Your task to perform on an android device: turn off notifications settings in the gmail app Image 0: 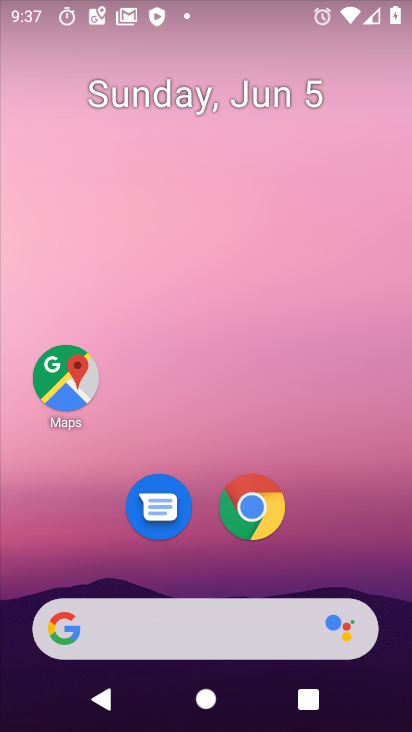
Step 0: drag from (282, 648) to (216, 195)
Your task to perform on an android device: turn off notifications settings in the gmail app Image 1: 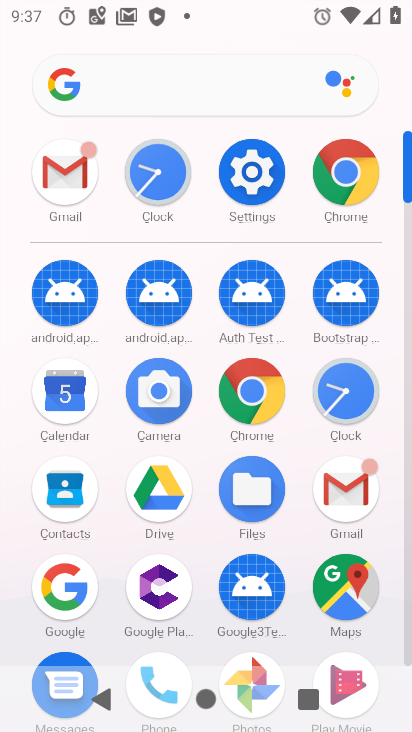
Step 1: click (73, 212)
Your task to perform on an android device: turn off notifications settings in the gmail app Image 2: 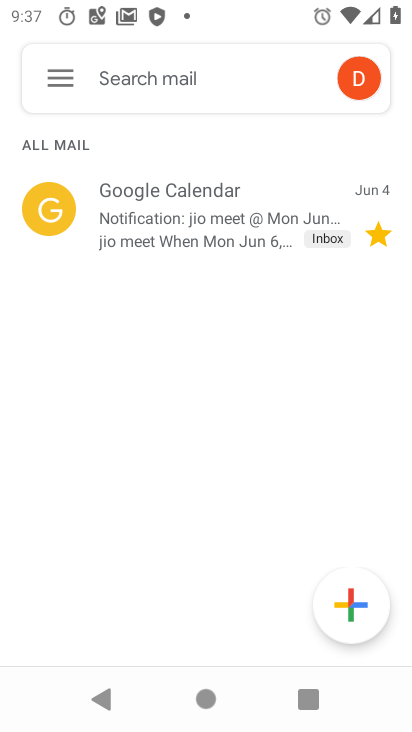
Step 2: click (65, 79)
Your task to perform on an android device: turn off notifications settings in the gmail app Image 3: 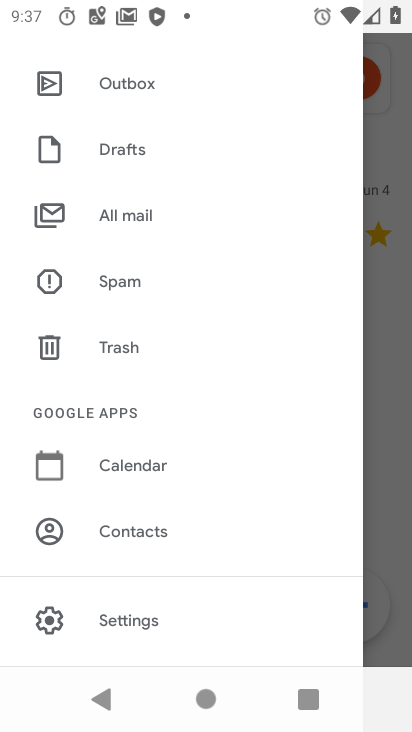
Step 3: click (138, 616)
Your task to perform on an android device: turn off notifications settings in the gmail app Image 4: 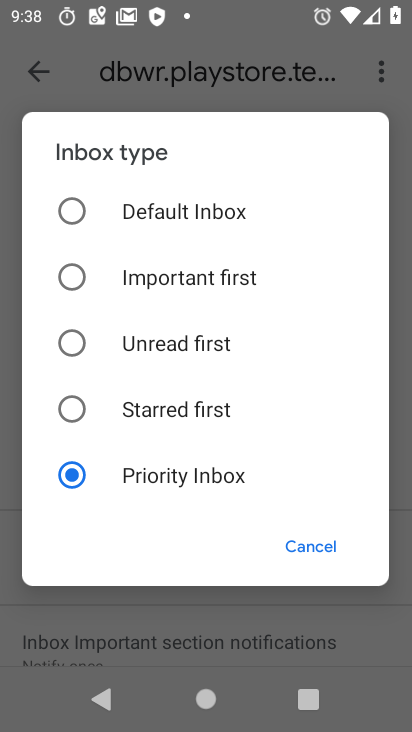
Step 4: click (306, 546)
Your task to perform on an android device: turn off notifications settings in the gmail app Image 5: 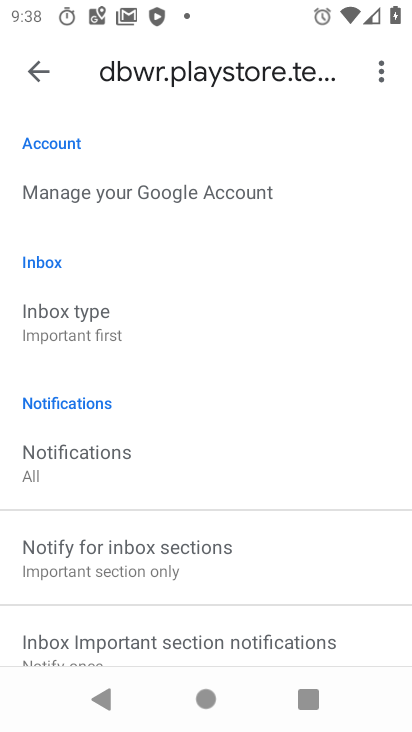
Step 5: click (78, 474)
Your task to perform on an android device: turn off notifications settings in the gmail app Image 6: 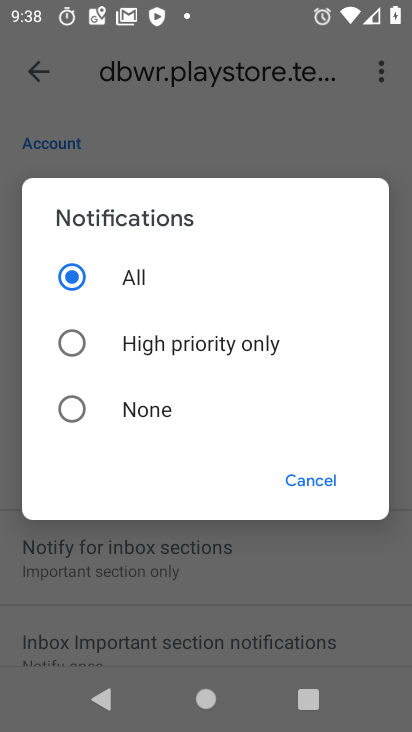
Step 6: click (145, 405)
Your task to perform on an android device: turn off notifications settings in the gmail app Image 7: 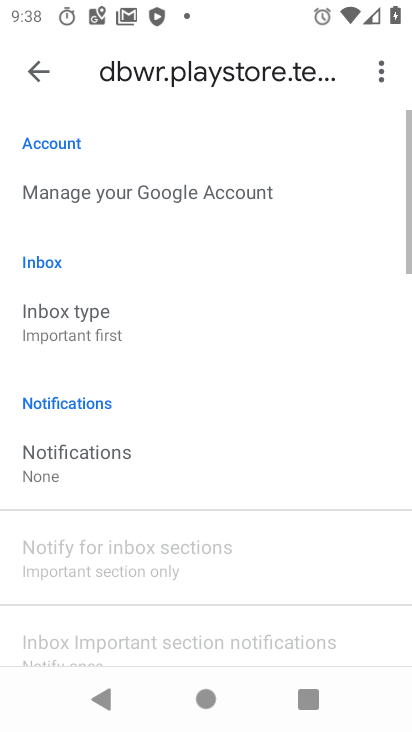
Step 7: click (143, 463)
Your task to perform on an android device: turn off notifications settings in the gmail app Image 8: 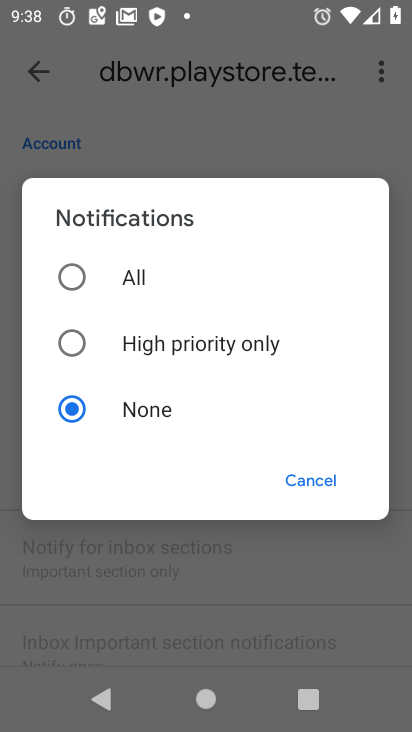
Step 8: task complete